Your task to perform on an android device: Go to eBay Image 0: 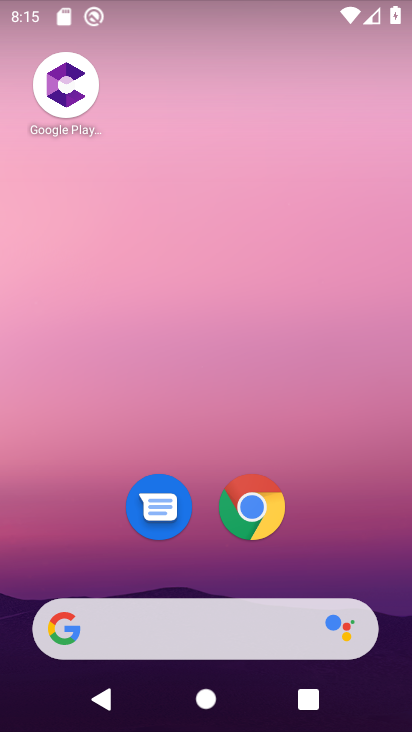
Step 0: drag from (207, 463) to (42, 289)
Your task to perform on an android device: Go to eBay Image 1: 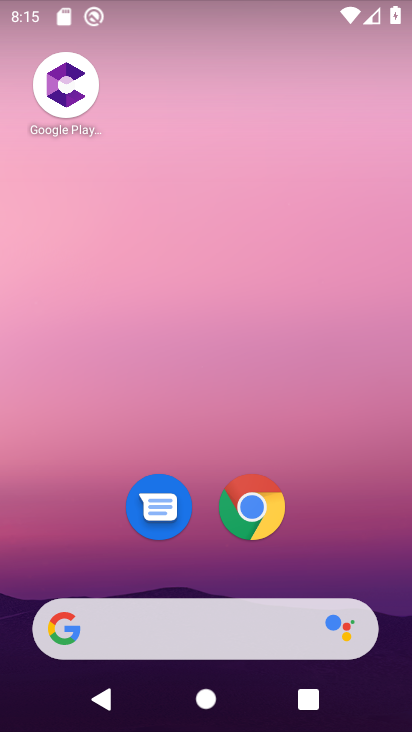
Step 1: drag from (198, 508) to (155, 41)
Your task to perform on an android device: Go to eBay Image 2: 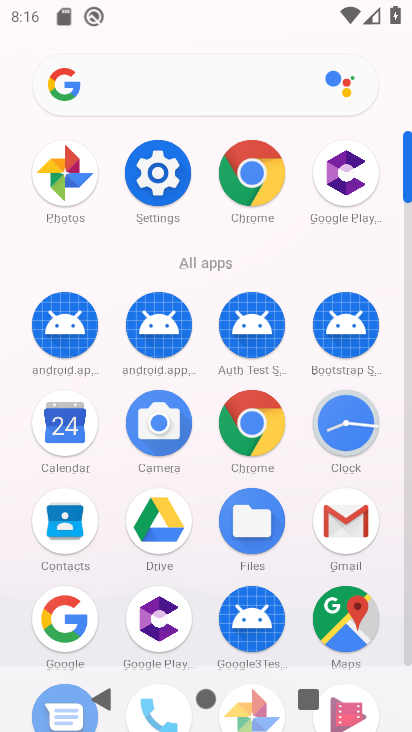
Step 2: click (149, 97)
Your task to perform on an android device: Go to eBay Image 3: 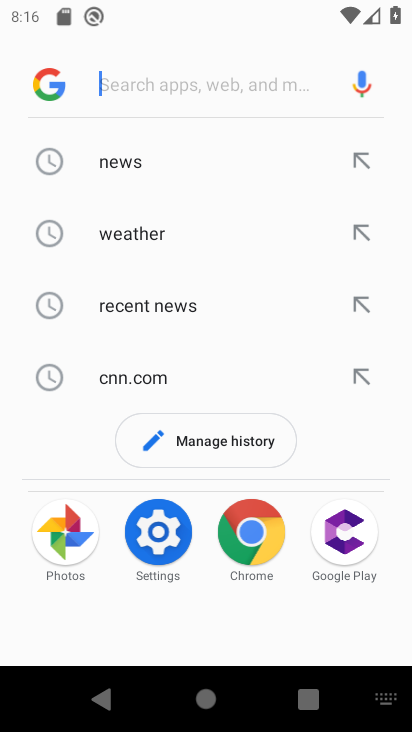
Step 3: type "ebay"
Your task to perform on an android device: Go to eBay Image 4: 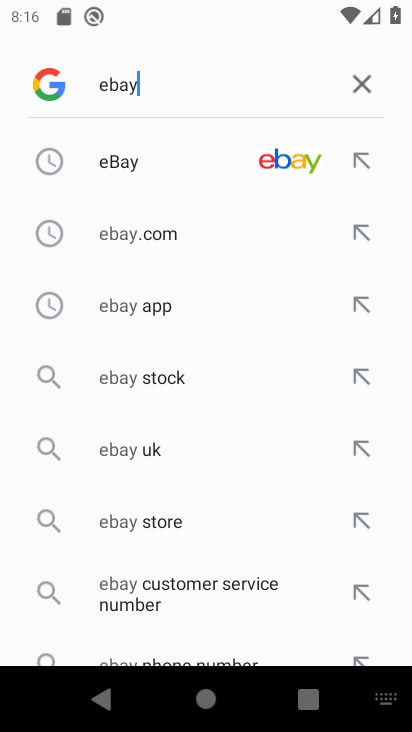
Step 4: click (199, 179)
Your task to perform on an android device: Go to eBay Image 5: 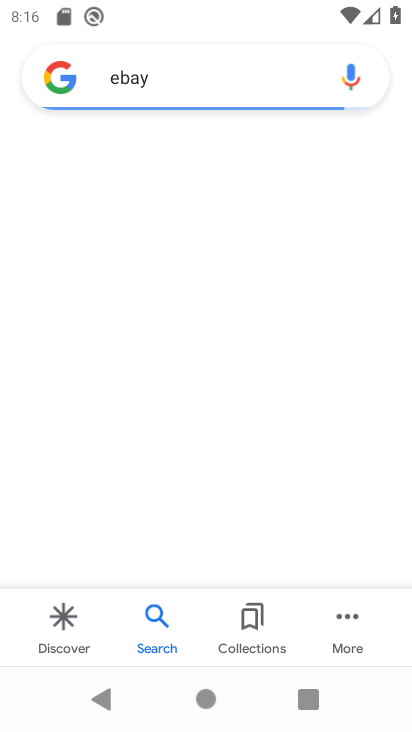
Step 5: drag from (230, 550) to (277, 85)
Your task to perform on an android device: Go to eBay Image 6: 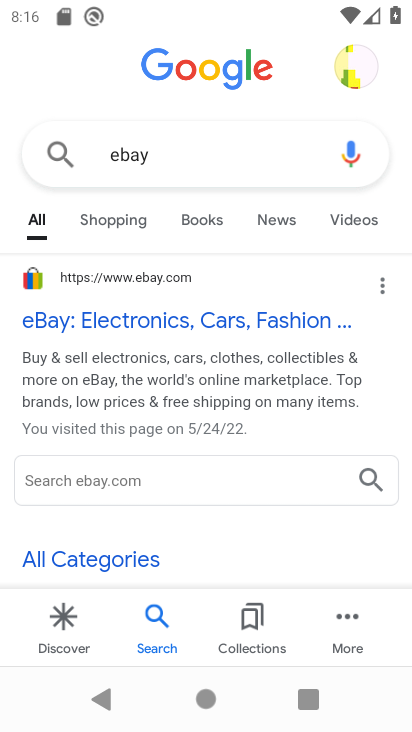
Step 6: drag from (198, 522) to (208, 232)
Your task to perform on an android device: Go to eBay Image 7: 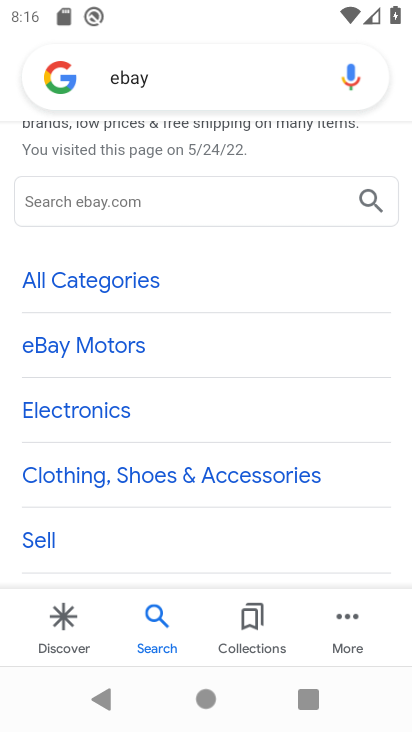
Step 7: drag from (204, 317) to (282, 726)
Your task to perform on an android device: Go to eBay Image 8: 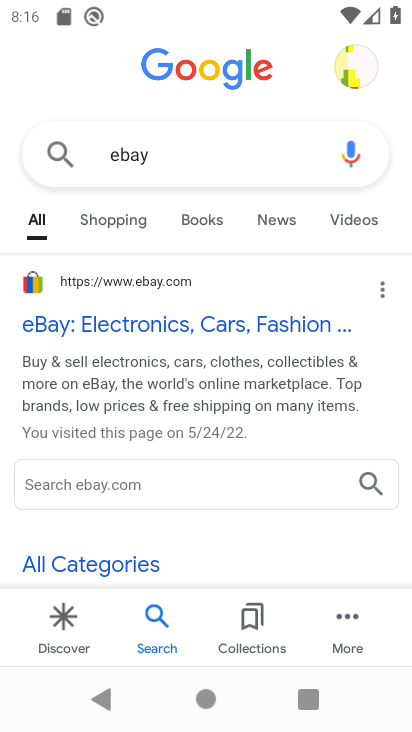
Step 8: click (158, 327)
Your task to perform on an android device: Go to eBay Image 9: 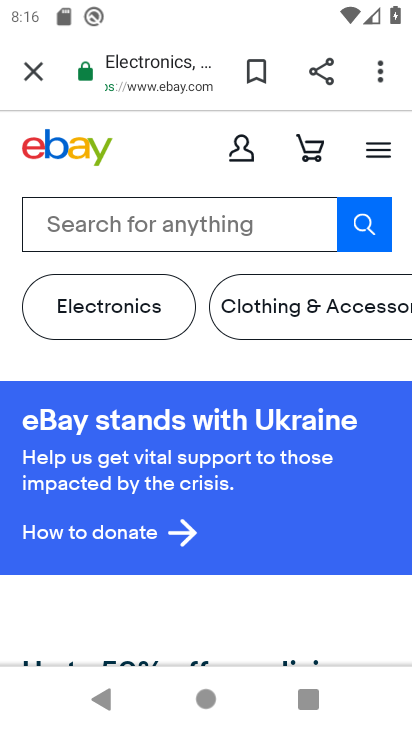
Step 9: task complete